Your task to perform on an android device: uninstall "Life360: Find Family & Friends" Image 0: 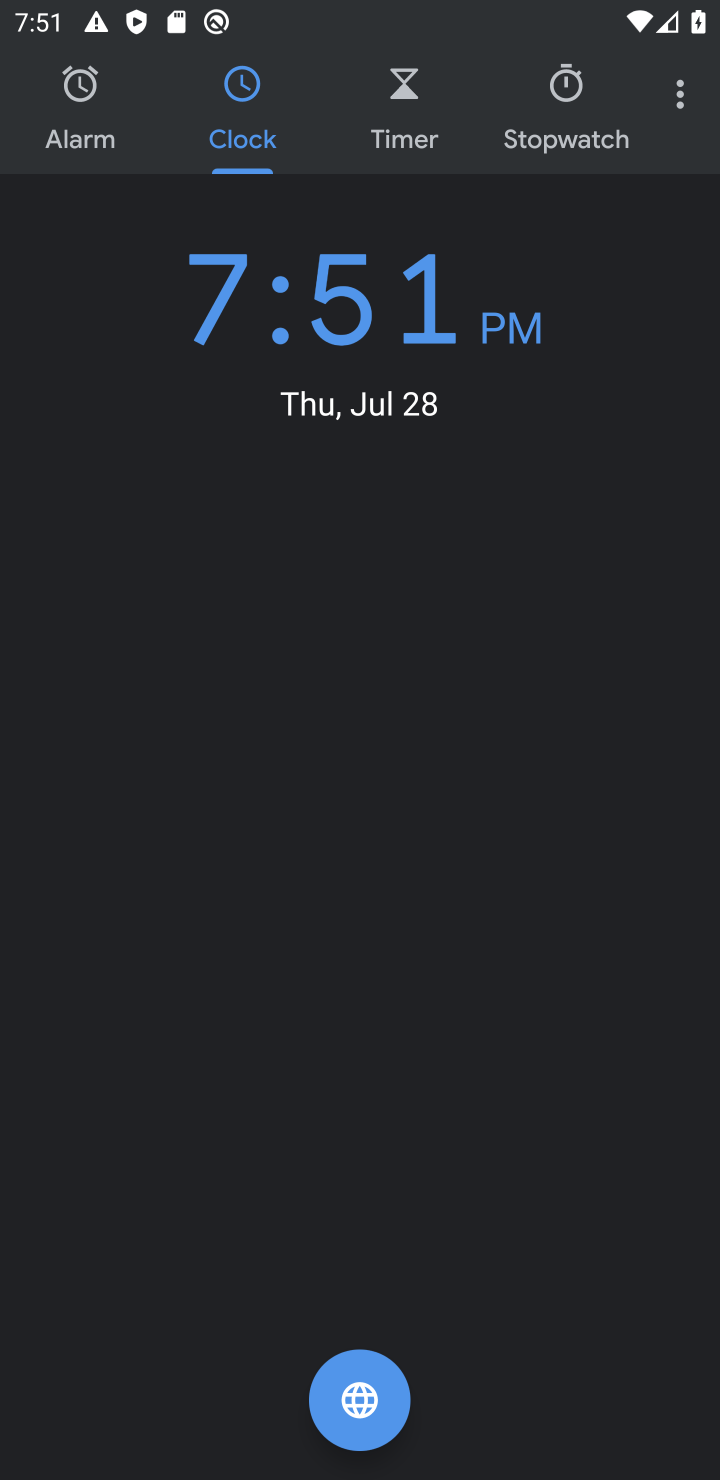
Step 0: press home button
Your task to perform on an android device: uninstall "Life360: Find Family & Friends" Image 1: 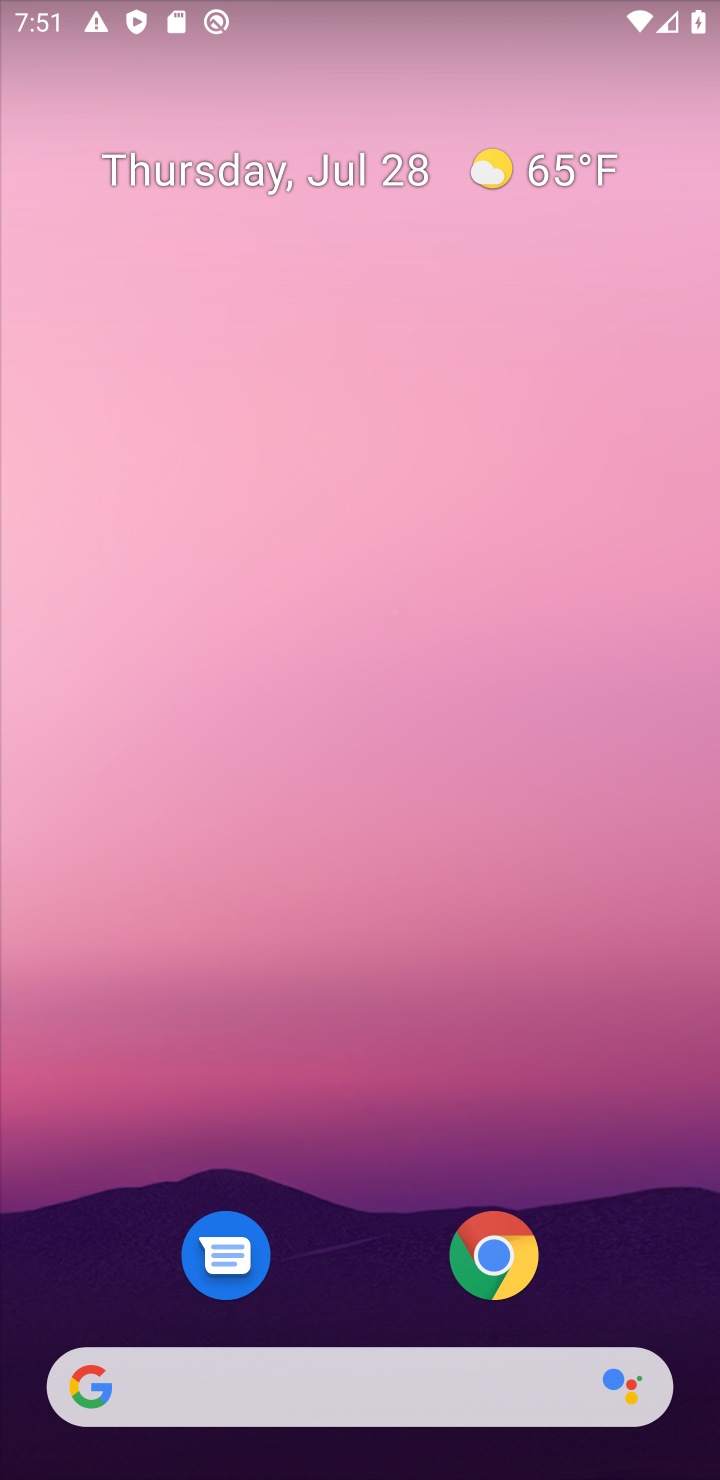
Step 1: drag from (334, 1360) to (334, 386)
Your task to perform on an android device: uninstall "Life360: Find Family & Friends" Image 2: 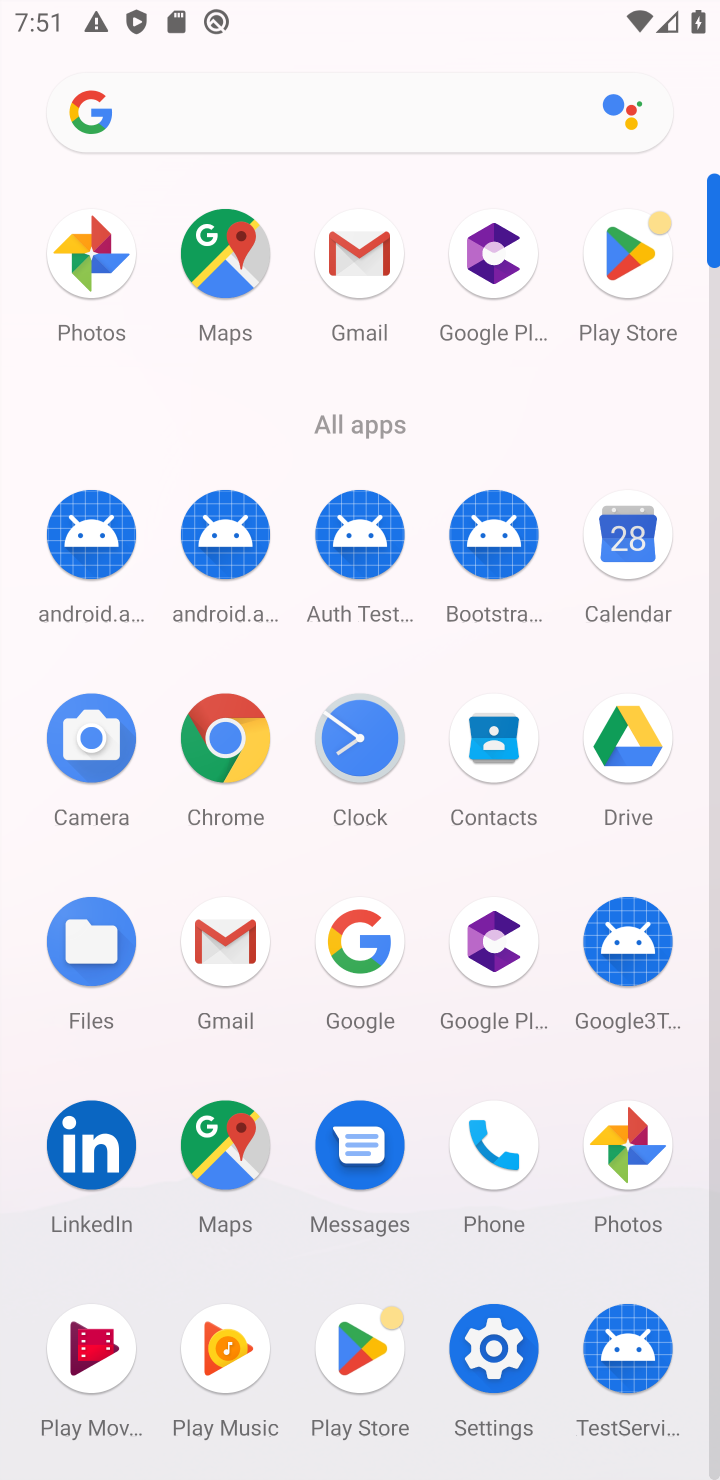
Step 2: click (360, 1351)
Your task to perform on an android device: uninstall "Life360: Find Family & Friends" Image 3: 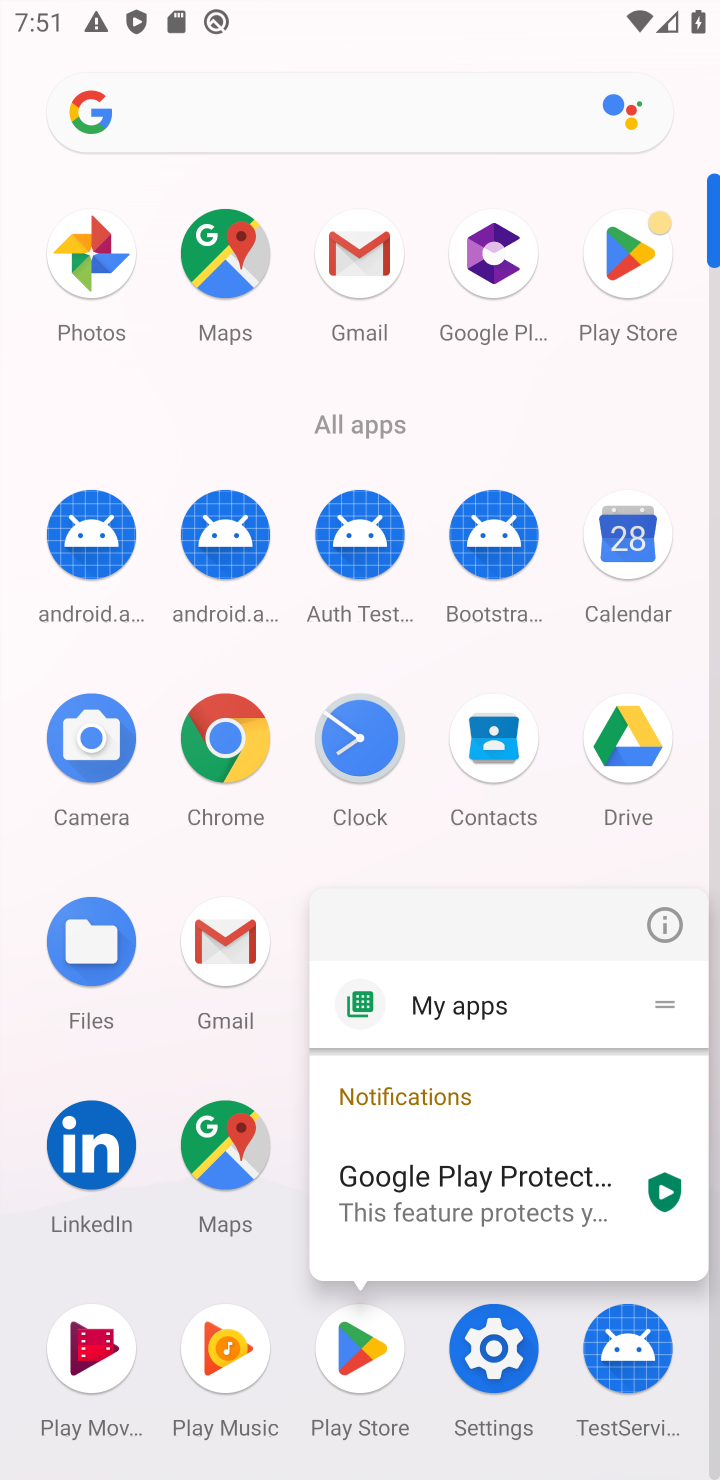
Step 3: click (378, 1374)
Your task to perform on an android device: uninstall "Life360: Find Family & Friends" Image 4: 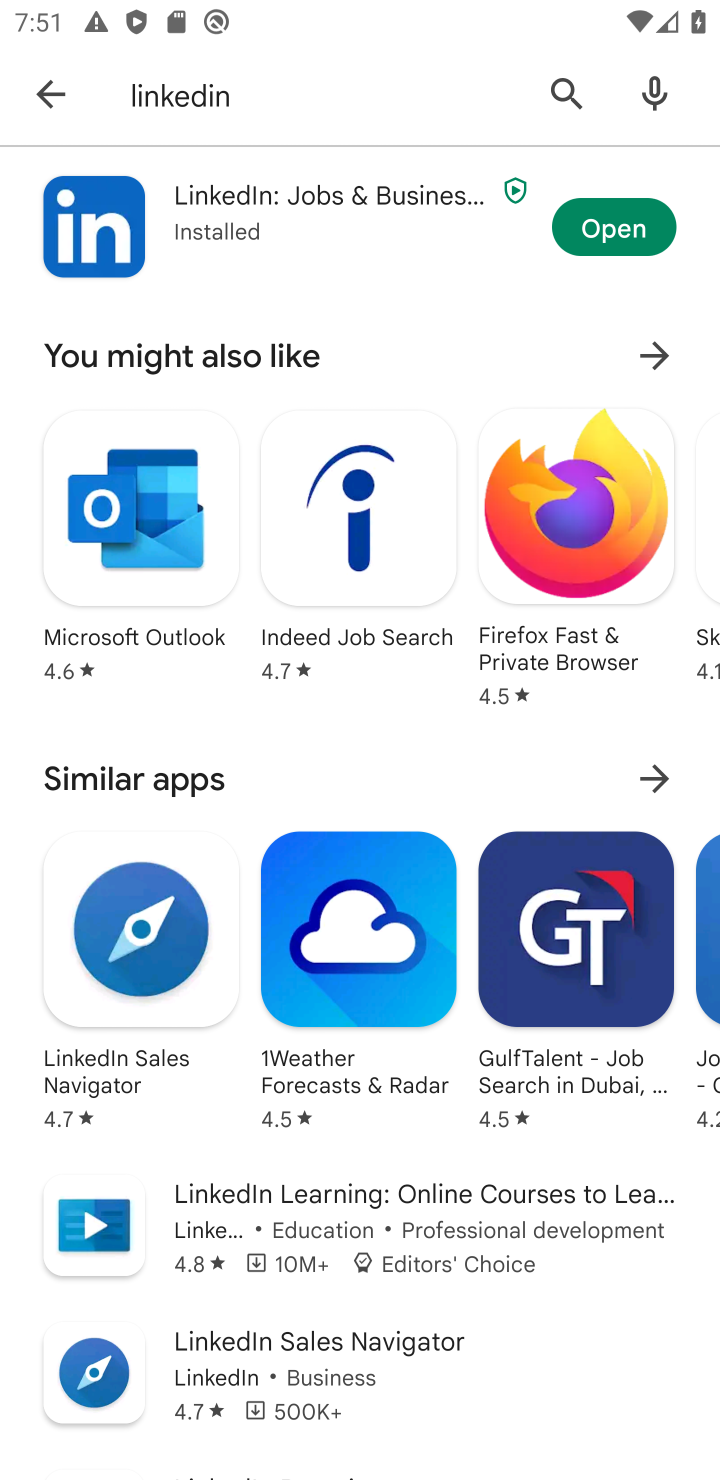
Step 4: click (66, 97)
Your task to perform on an android device: uninstall "Life360: Find Family & Friends" Image 5: 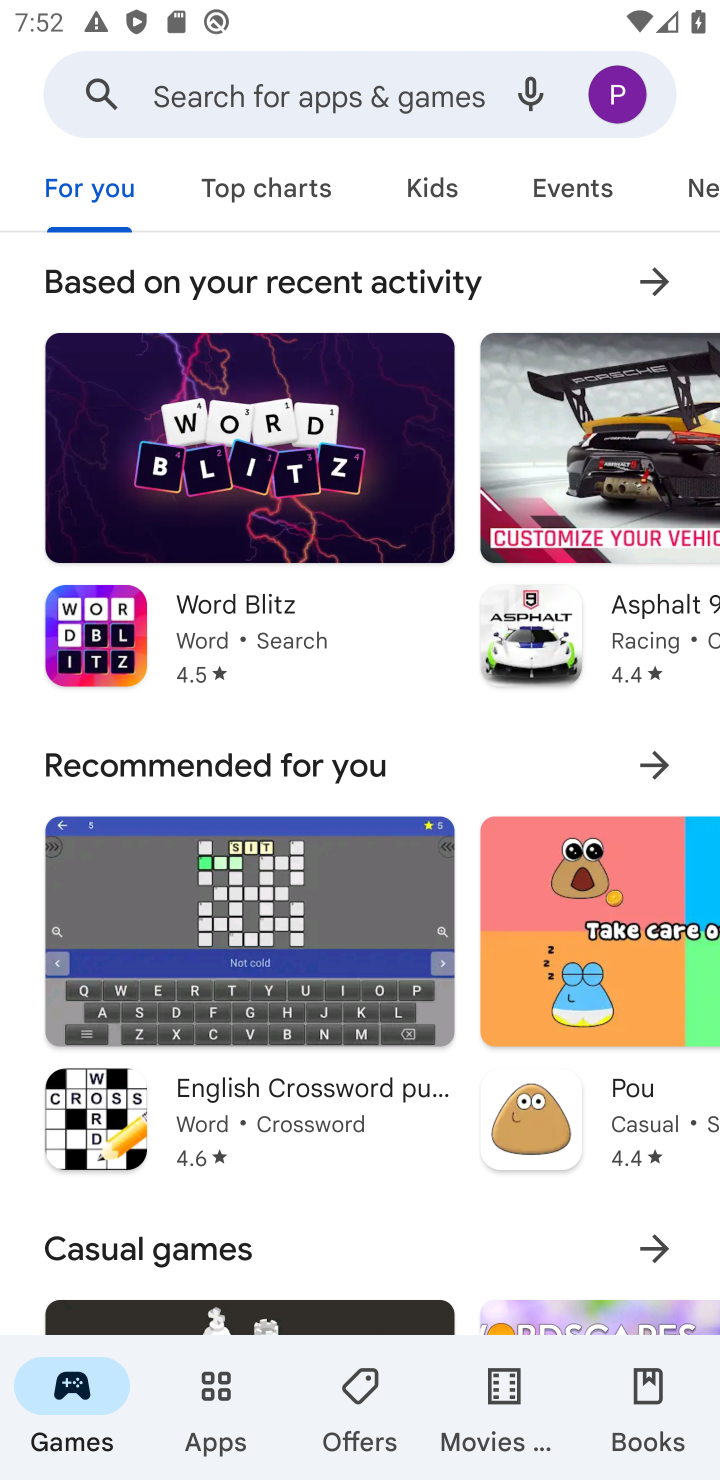
Step 5: click (221, 102)
Your task to perform on an android device: uninstall "Life360: Find Family & Friends" Image 6: 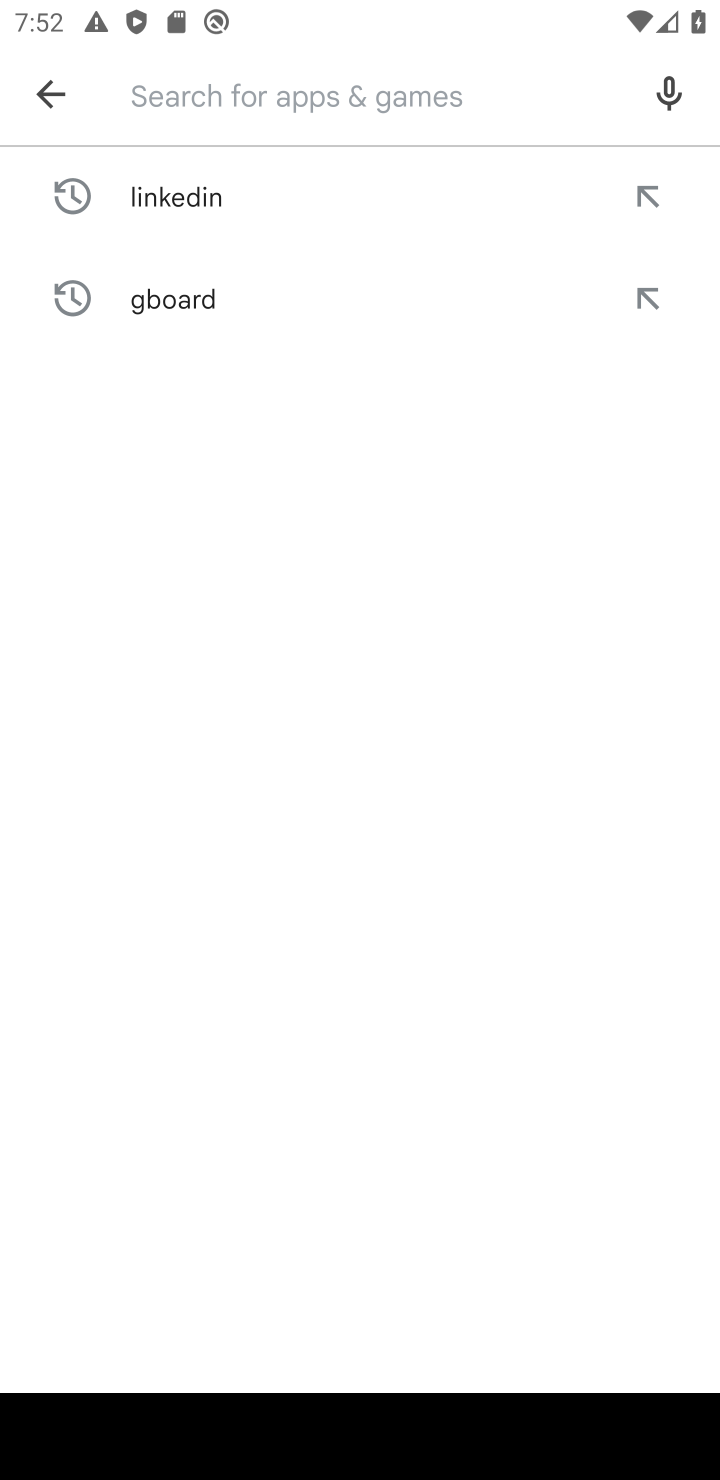
Step 6: type "Life360: Find Family & Friends"
Your task to perform on an android device: uninstall "Life360: Find Family & Friends" Image 7: 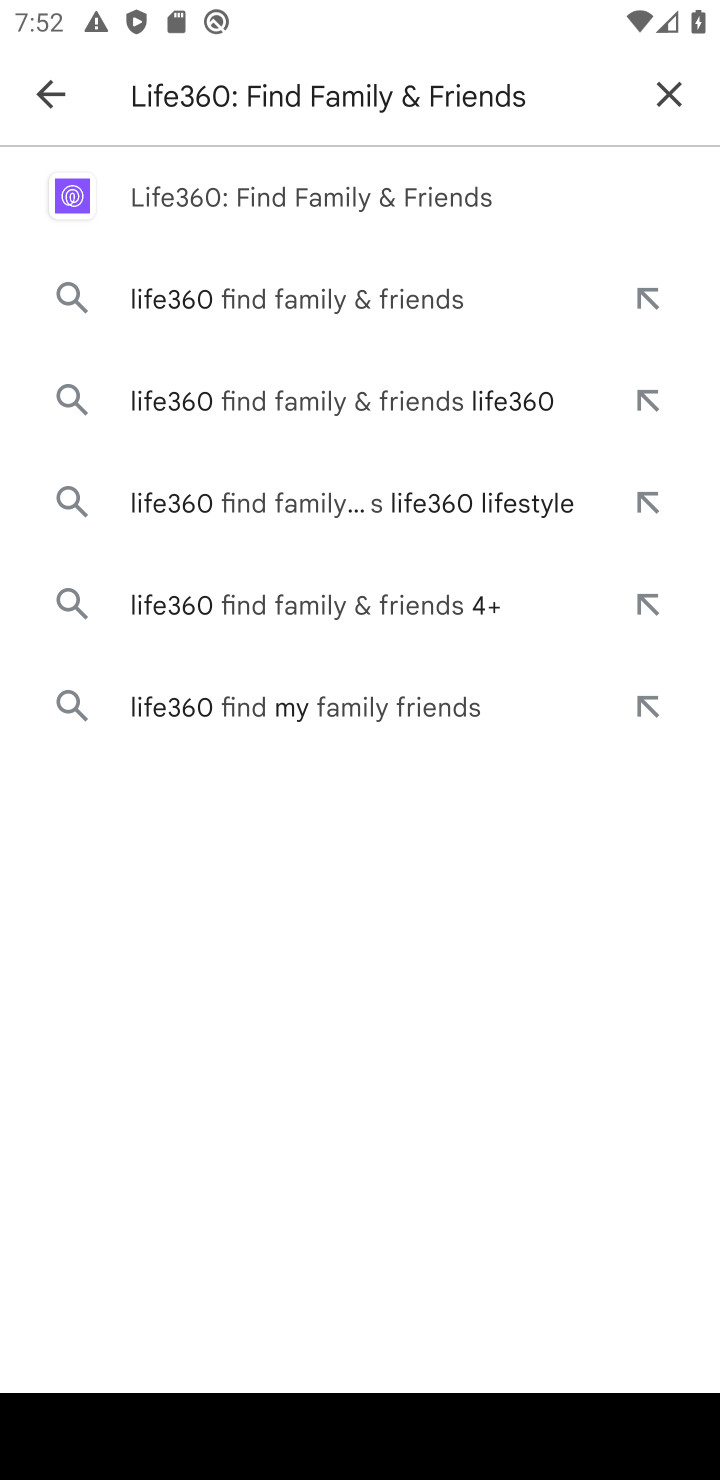
Step 7: click (406, 196)
Your task to perform on an android device: uninstall "Life360: Find Family & Friends" Image 8: 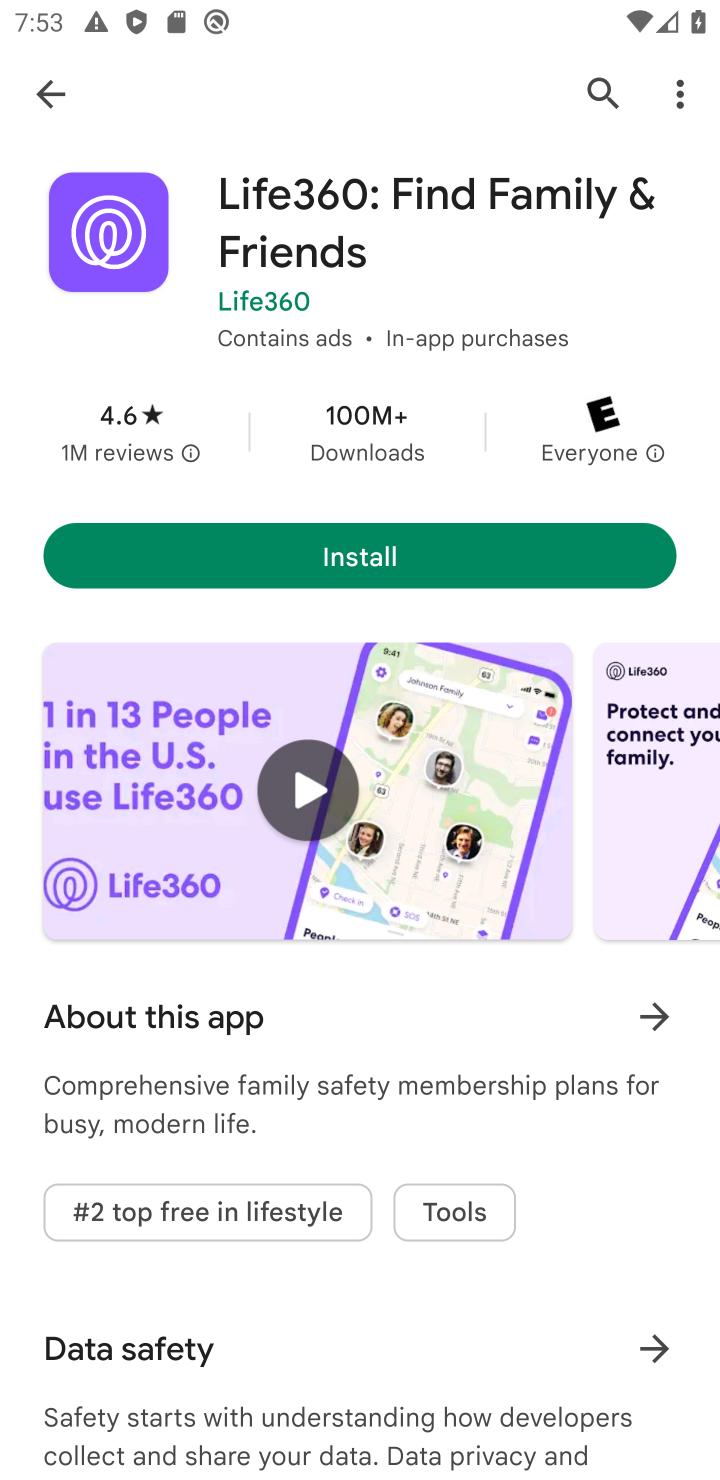
Step 8: task complete